Your task to perform on an android device: turn on the 12-hour format for clock Image 0: 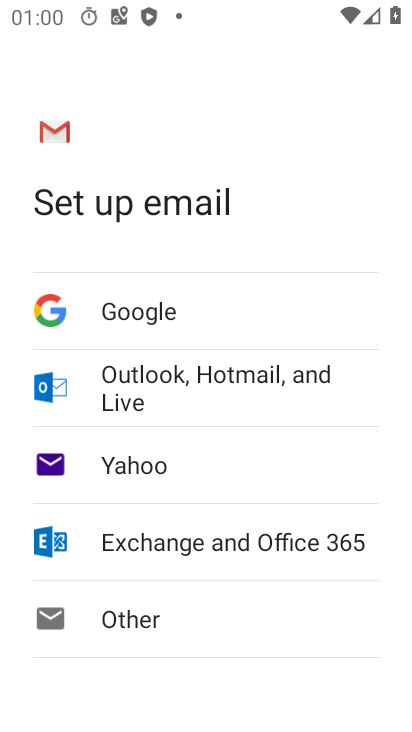
Step 0: press home button
Your task to perform on an android device: turn on the 12-hour format for clock Image 1: 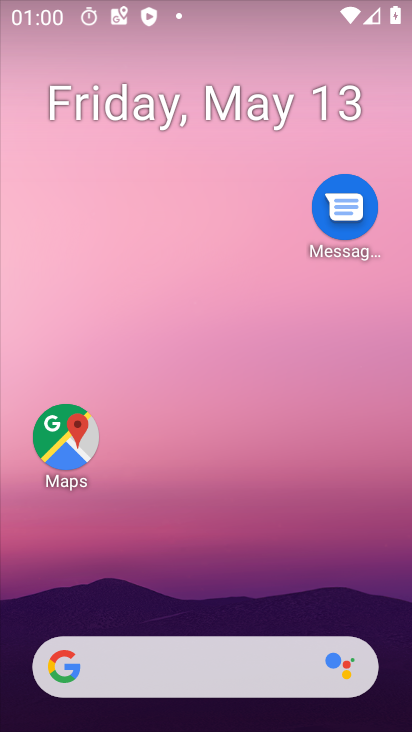
Step 1: drag from (295, 561) to (411, 126)
Your task to perform on an android device: turn on the 12-hour format for clock Image 2: 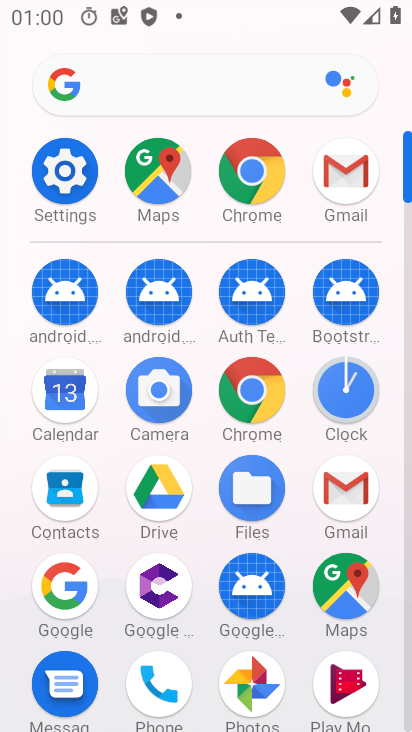
Step 2: click (338, 391)
Your task to perform on an android device: turn on the 12-hour format for clock Image 3: 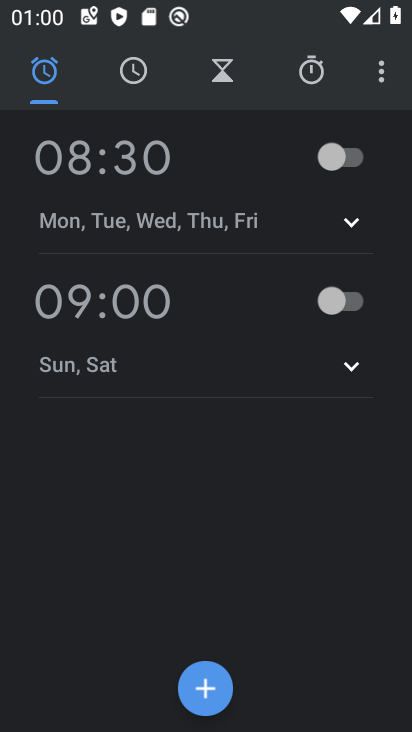
Step 3: click (377, 81)
Your task to perform on an android device: turn on the 12-hour format for clock Image 4: 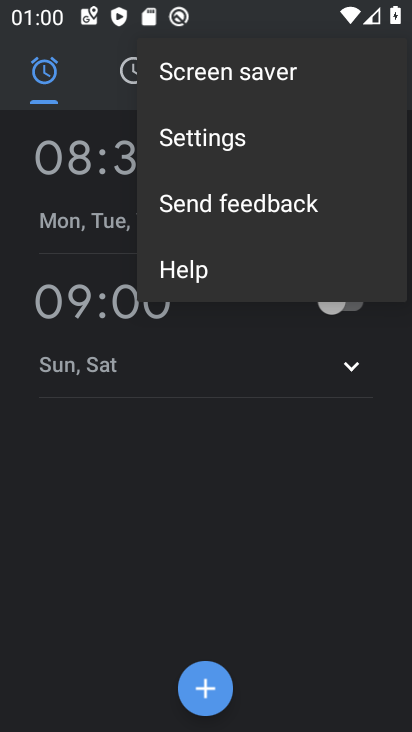
Step 4: click (273, 128)
Your task to perform on an android device: turn on the 12-hour format for clock Image 5: 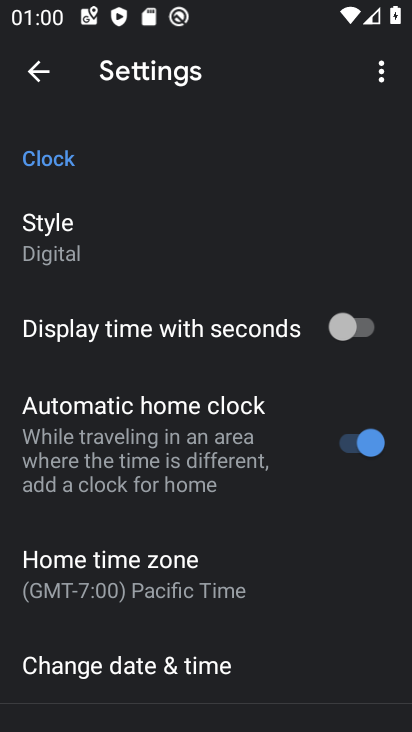
Step 5: click (239, 661)
Your task to perform on an android device: turn on the 12-hour format for clock Image 6: 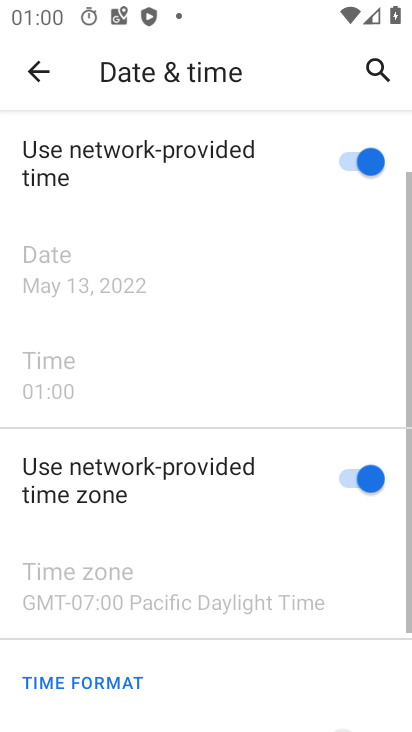
Step 6: drag from (226, 566) to (225, 217)
Your task to perform on an android device: turn on the 12-hour format for clock Image 7: 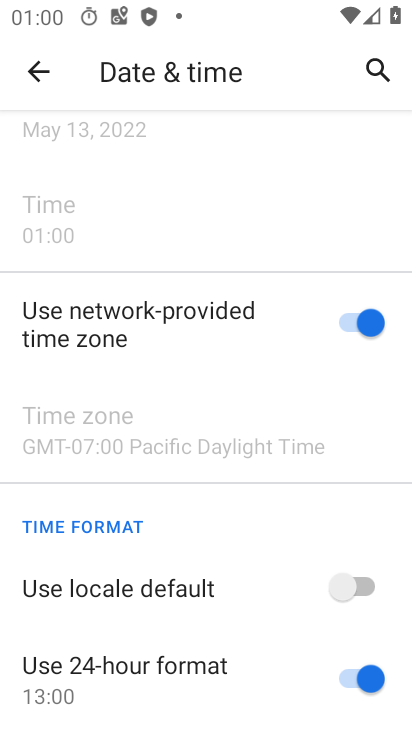
Step 7: click (235, 596)
Your task to perform on an android device: turn on the 12-hour format for clock Image 8: 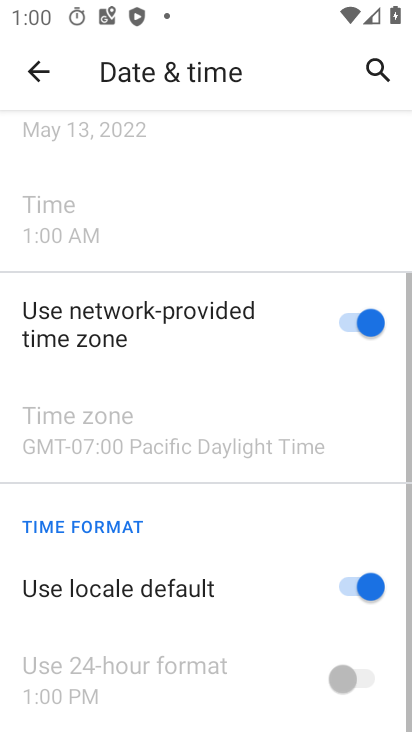
Step 8: click (350, 662)
Your task to perform on an android device: turn on the 12-hour format for clock Image 9: 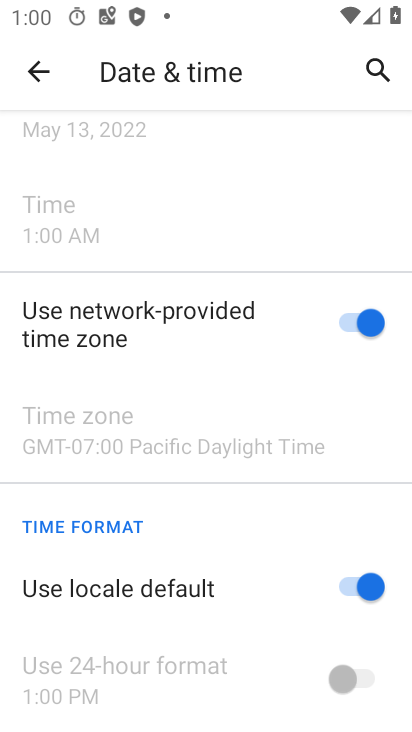
Step 9: click (385, 585)
Your task to perform on an android device: turn on the 12-hour format for clock Image 10: 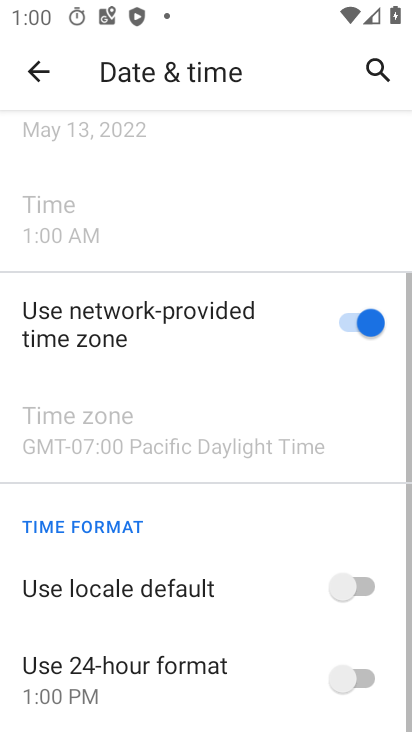
Step 10: click (361, 692)
Your task to perform on an android device: turn on the 12-hour format for clock Image 11: 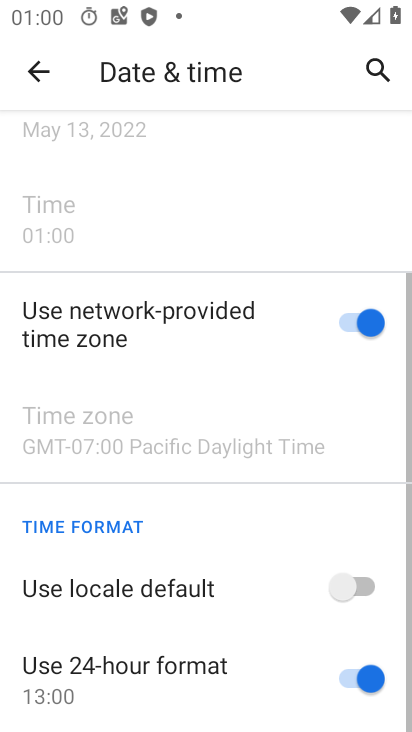
Step 11: task complete